Your task to perform on an android device: Open the map Image 0: 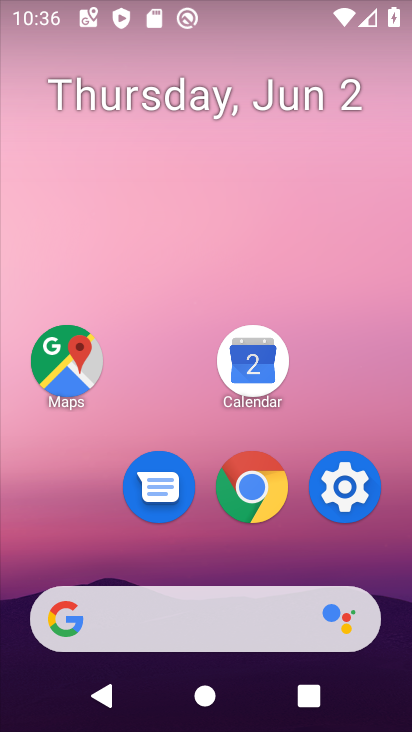
Step 0: drag from (172, 646) to (280, 40)
Your task to perform on an android device: Open the map Image 1: 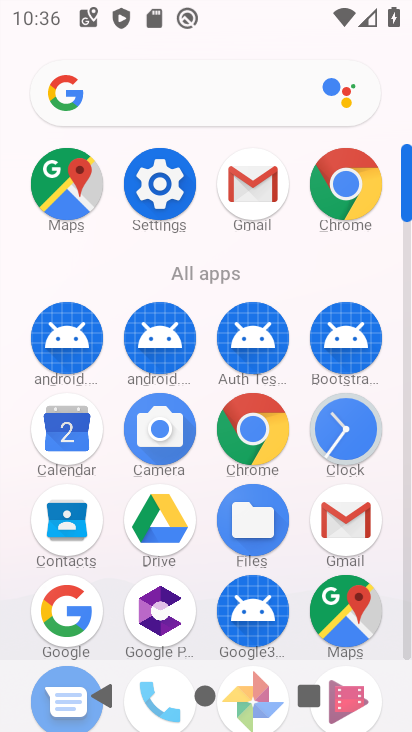
Step 1: click (70, 193)
Your task to perform on an android device: Open the map Image 2: 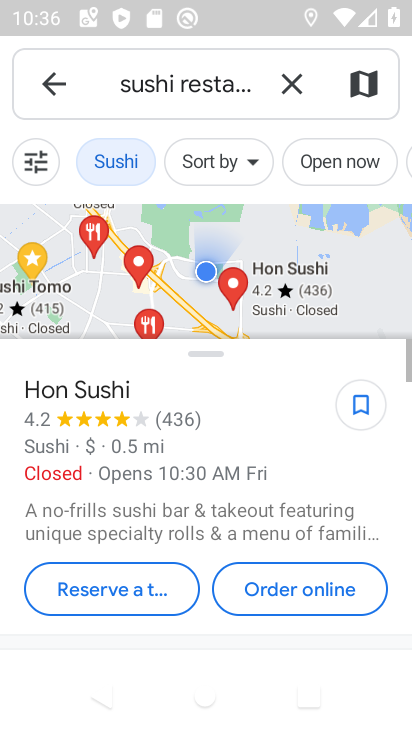
Step 2: click (47, 74)
Your task to perform on an android device: Open the map Image 3: 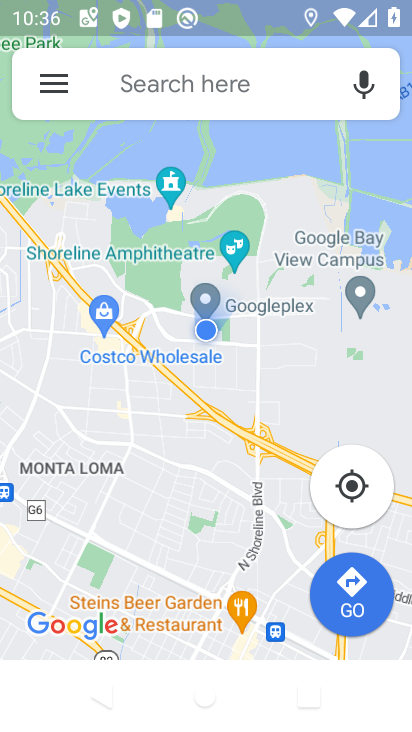
Step 3: task complete